Your task to perform on an android device: turn off priority inbox in the gmail app Image 0: 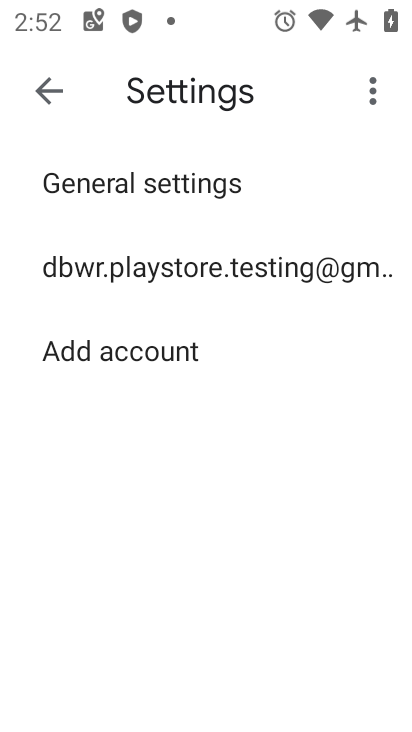
Step 0: press home button
Your task to perform on an android device: turn off priority inbox in the gmail app Image 1: 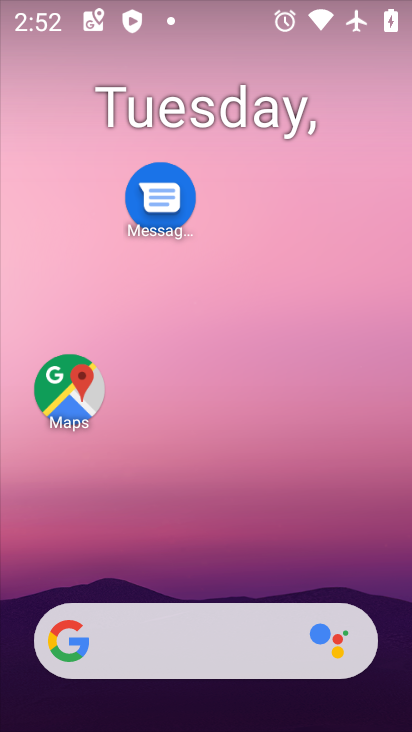
Step 1: drag from (209, 577) to (209, 217)
Your task to perform on an android device: turn off priority inbox in the gmail app Image 2: 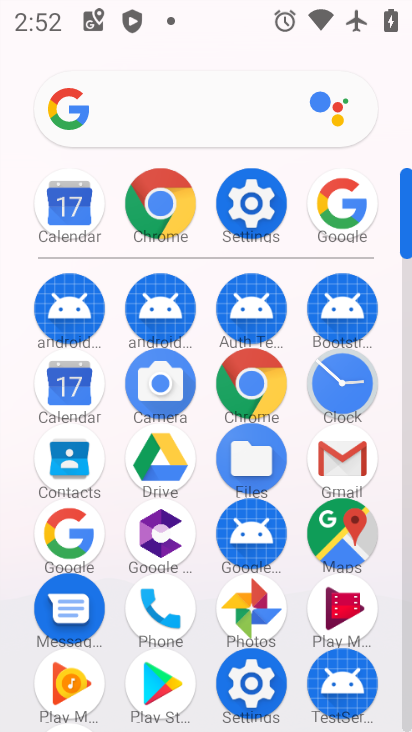
Step 2: click (326, 443)
Your task to perform on an android device: turn off priority inbox in the gmail app Image 3: 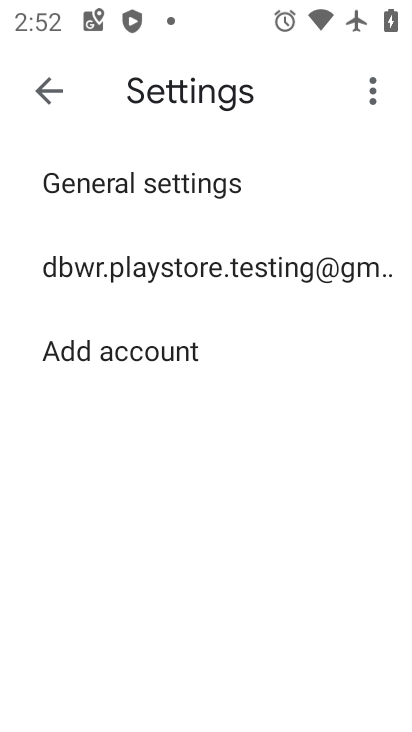
Step 3: click (89, 276)
Your task to perform on an android device: turn off priority inbox in the gmail app Image 4: 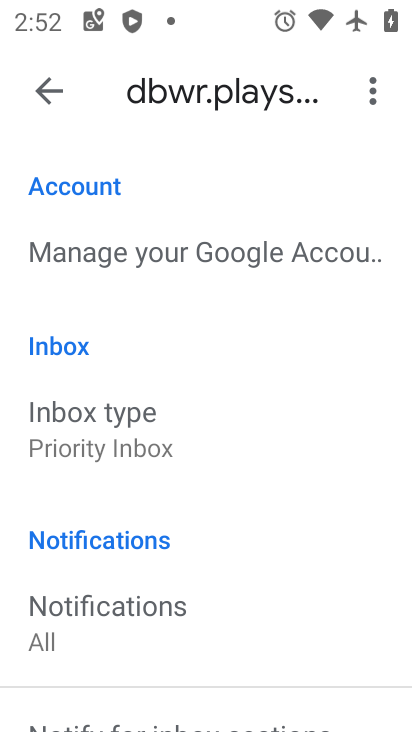
Step 4: drag from (182, 536) to (203, 325)
Your task to perform on an android device: turn off priority inbox in the gmail app Image 5: 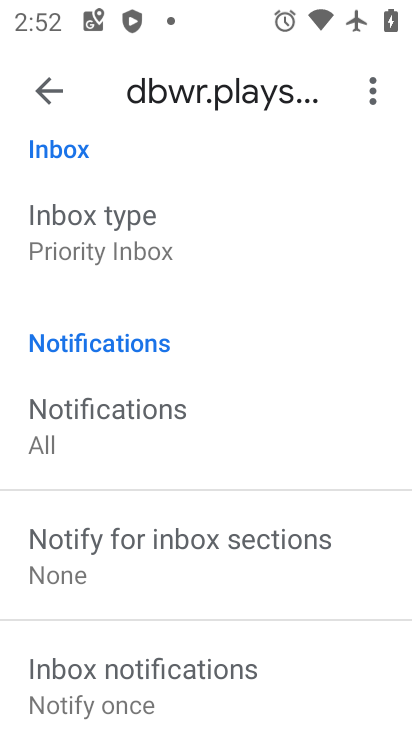
Step 5: drag from (198, 542) to (218, 312)
Your task to perform on an android device: turn off priority inbox in the gmail app Image 6: 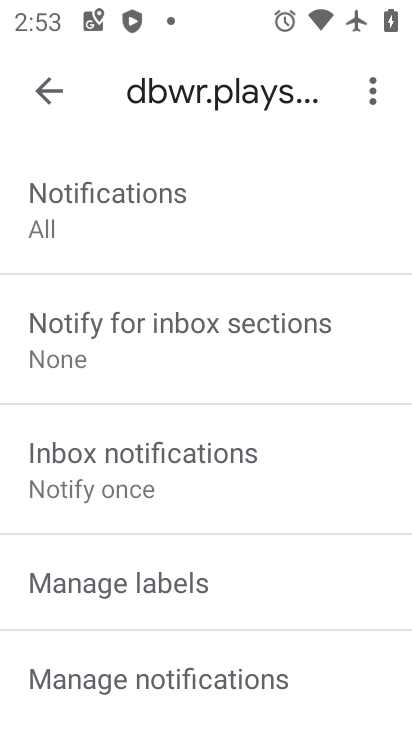
Step 6: drag from (211, 573) to (254, 366)
Your task to perform on an android device: turn off priority inbox in the gmail app Image 7: 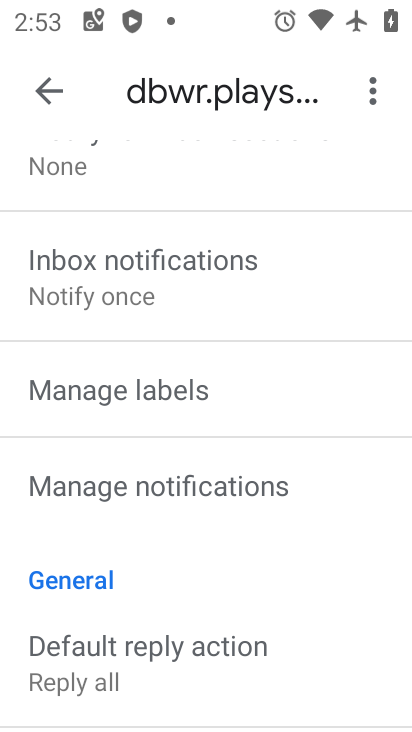
Step 7: drag from (175, 322) to (183, 608)
Your task to perform on an android device: turn off priority inbox in the gmail app Image 8: 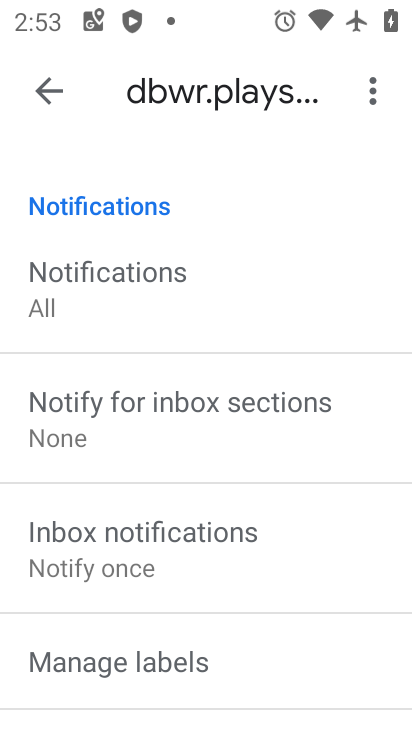
Step 8: drag from (193, 340) to (202, 605)
Your task to perform on an android device: turn off priority inbox in the gmail app Image 9: 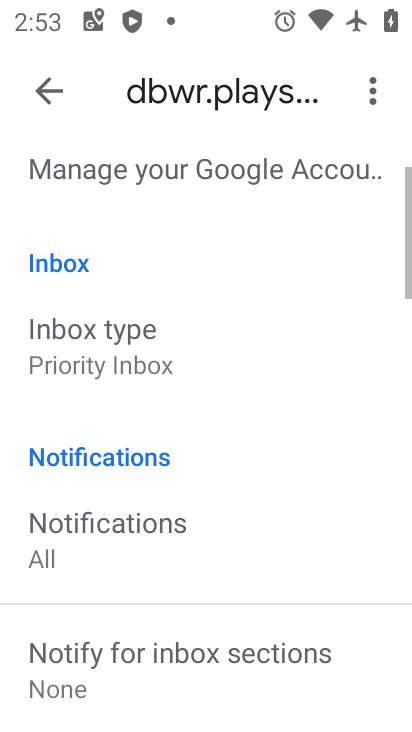
Step 9: click (131, 353)
Your task to perform on an android device: turn off priority inbox in the gmail app Image 10: 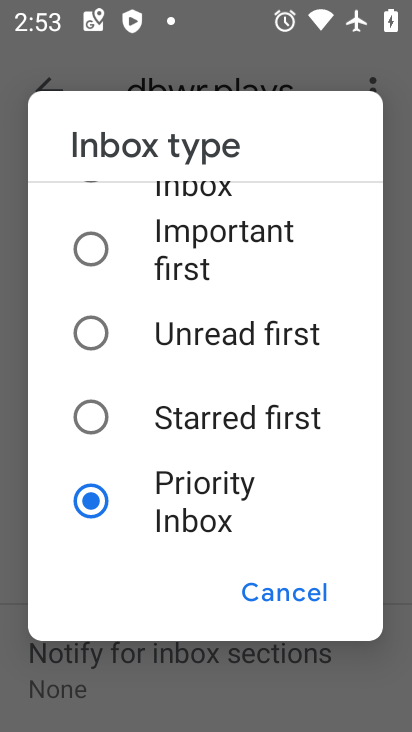
Step 10: drag from (148, 260) to (156, 471)
Your task to perform on an android device: turn off priority inbox in the gmail app Image 11: 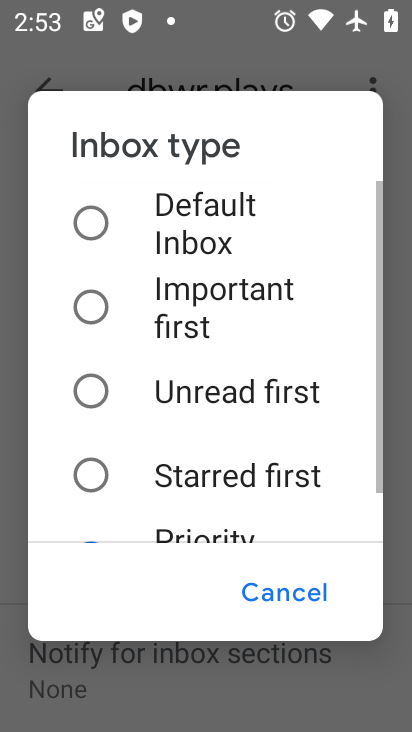
Step 11: click (89, 229)
Your task to perform on an android device: turn off priority inbox in the gmail app Image 12: 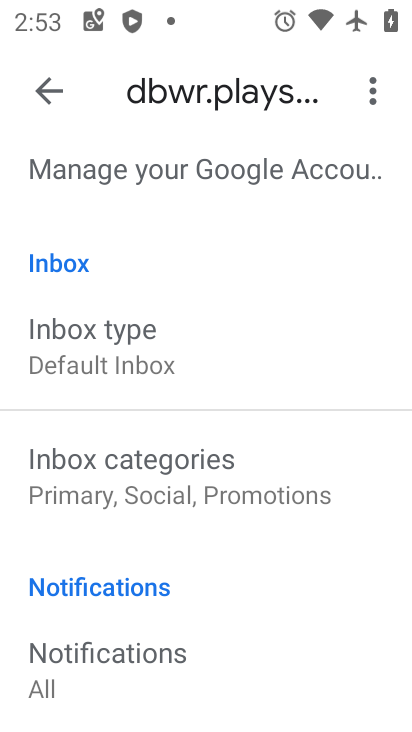
Step 12: task complete